Your task to perform on an android device: turn off picture-in-picture Image 0: 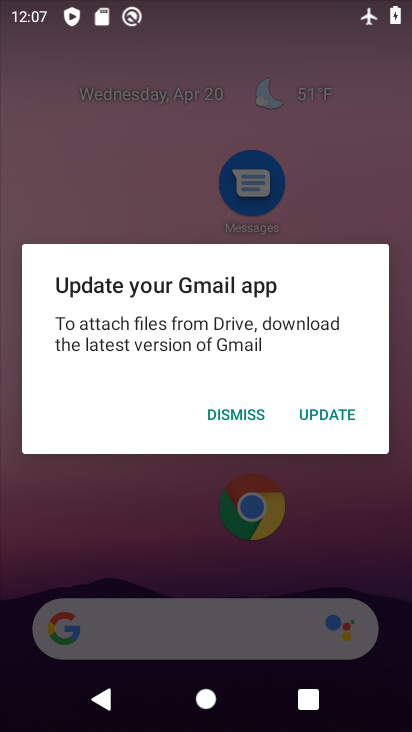
Step 0: press home button
Your task to perform on an android device: turn off picture-in-picture Image 1: 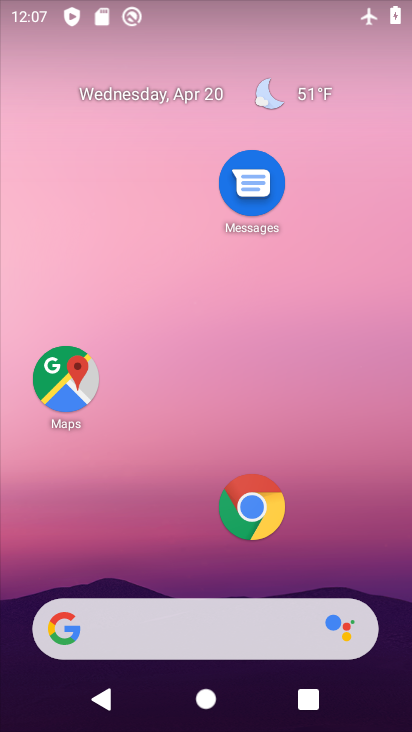
Step 1: click (254, 507)
Your task to perform on an android device: turn off picture-in-picture Image 2: 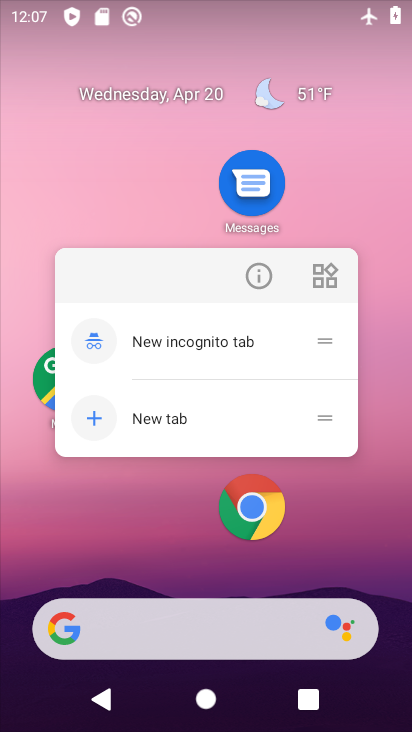
Step 2: click (253, 274)
Your task to perform on an android device: turn off picture-in-picture Image 3: 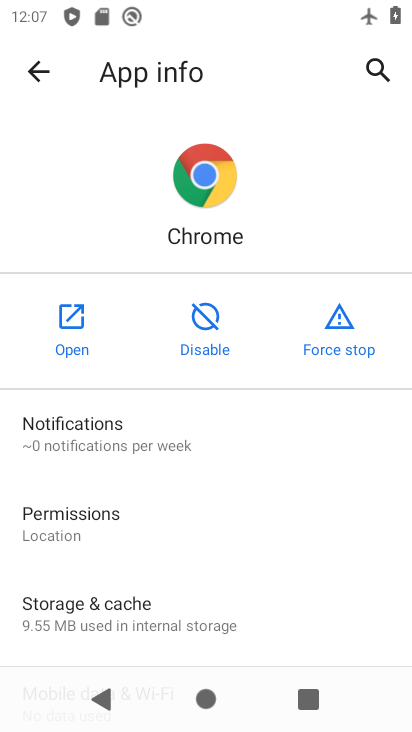
Step 3: drag from (210, 561) to (233, 303)
Your task to perform on an android device: turn off picture-in-picture Image 4: 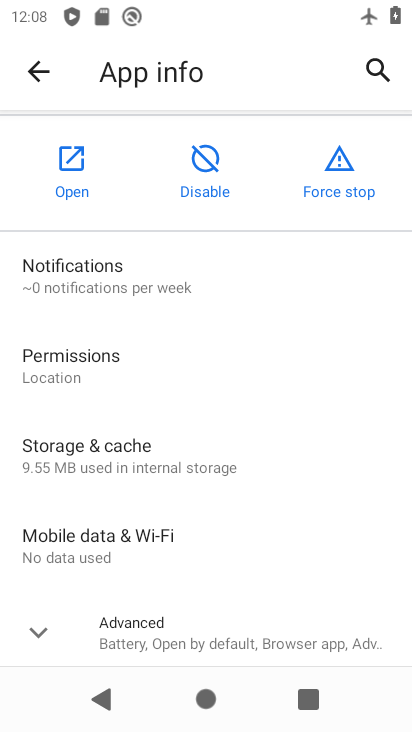
Step 4: drag from (203, 580) to (209, 384)
Your task to perform on an android device: turn off picture-in-picture Image 5: 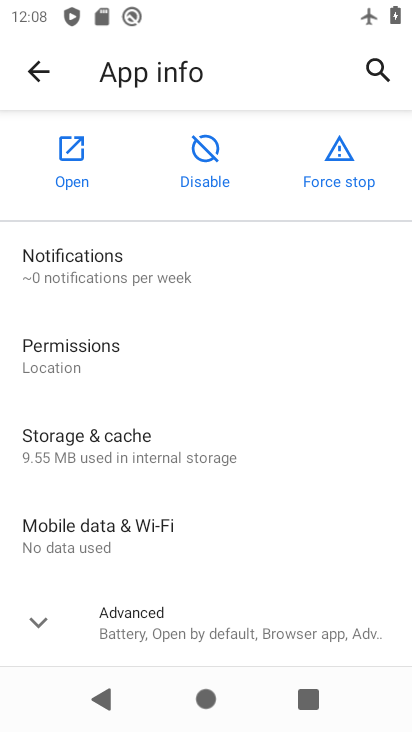
Step 5: click (214, 630)
Your task to perform on an android device: turn off picture-in-picture Image 6: 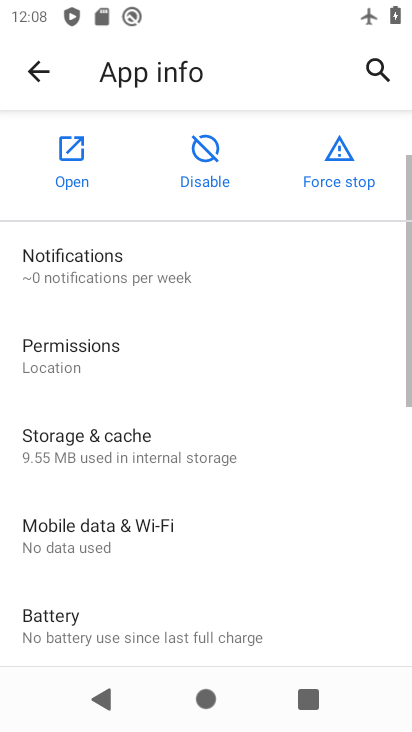
Step 6: drag from (194, 575) to (160, 361)
Your task to perform on an android device: turn off picture-in-picture Image 7: 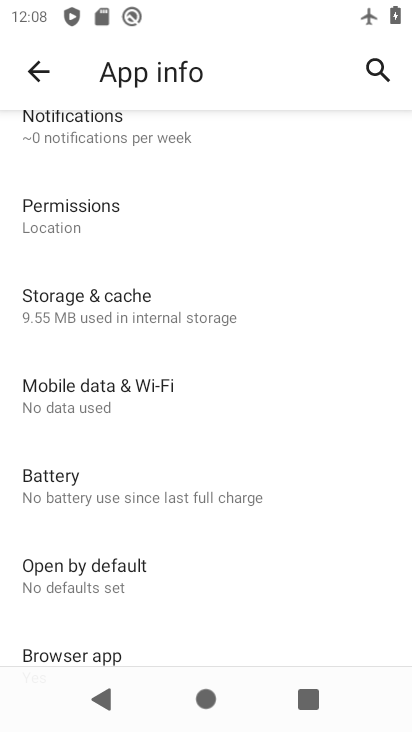
Step 7: drag from (190, 589) to (219, 427)
Your task to perform on an android device: turn off picture-in-picture Image 8: 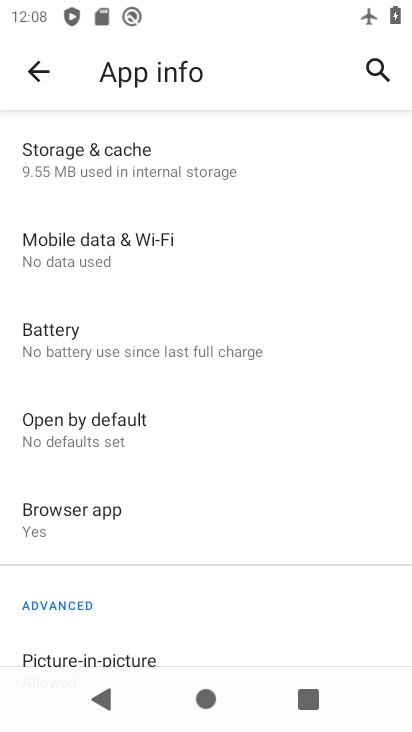
Step 8: drag from (161, 597) to (189, 453)
Your task to perform on an android device: turn off picture-in-picture Image 9: 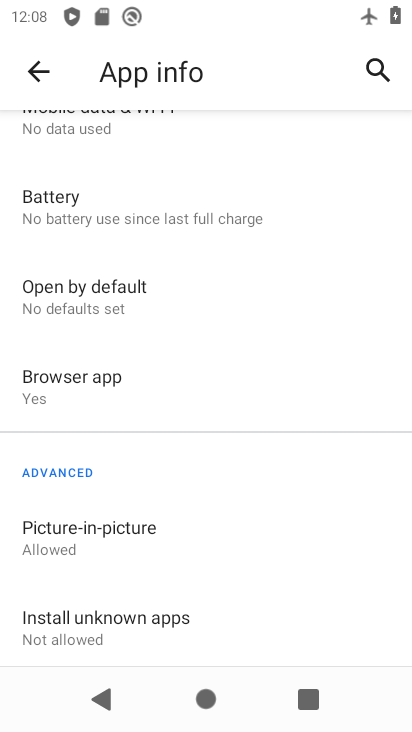
Step 9: click (68, 540)
Your task to perform on an android device: turn off picture-in-picture Image 10: 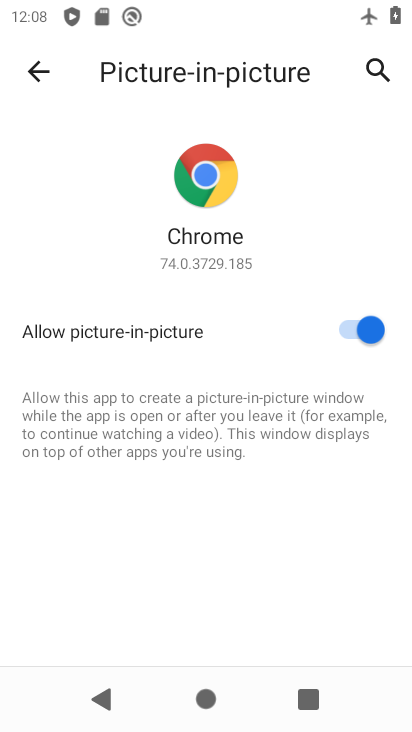
Step 10: click (376, 331)
Your task to perform on an android device: turn off picture-in-picture Image 11: 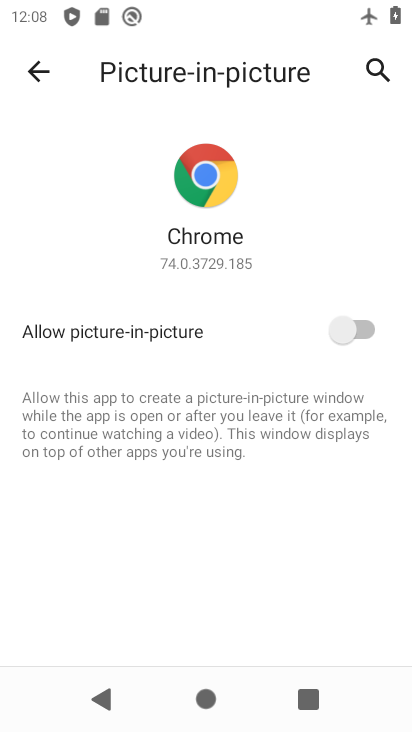
Step 11: task complete